Your task to perform on an android device: Open Google Chrome and open the bookmarks view Image 0: 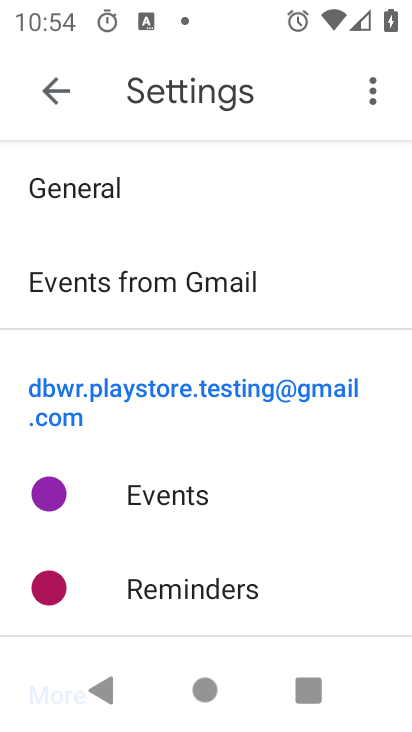
Step 0: press home button
Your task to perform on an android device: Open Google Chrome and open the bookmarks view Image 1: 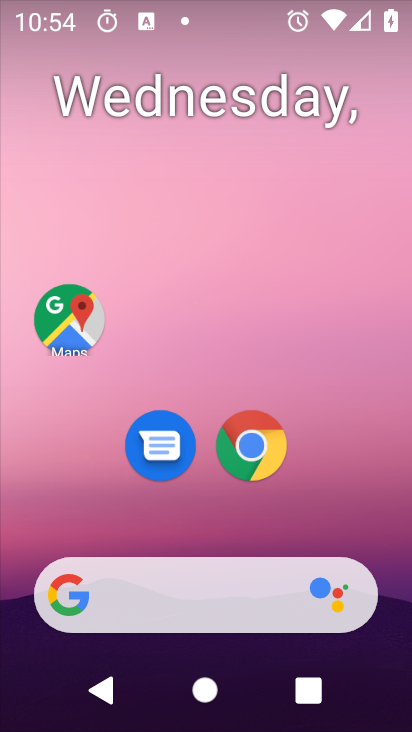
Step 1: drag from (345, 570) to (328, 21)
Your task to perform on an android device: Open Google Chrome and open the bookmarks view Image 2: 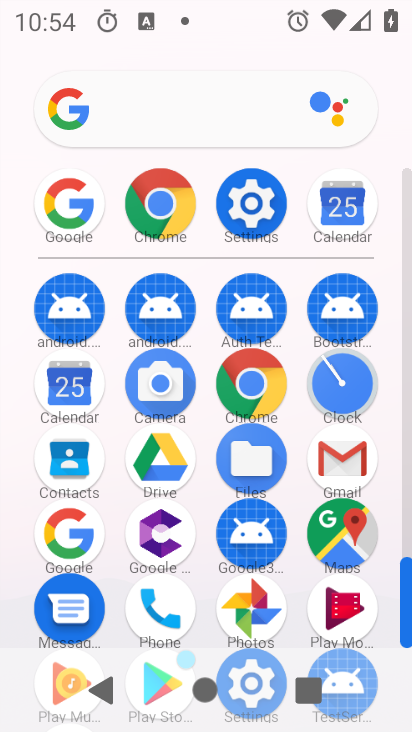
Step 2: click (162, 210)
Your task to perform on an android device: Open Google Chrome and open the bookmarks view Image 3: 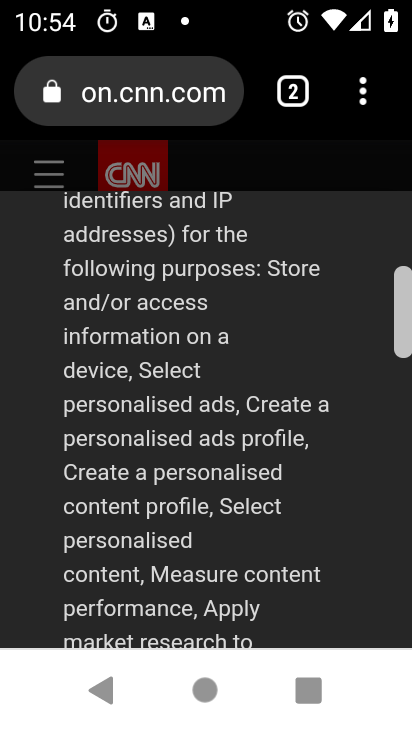
Step 3: drag from (362, 97) to (182, 353)
Your task to perform on an android device: Open Google Chrome and open the bookmarks view Image 4: 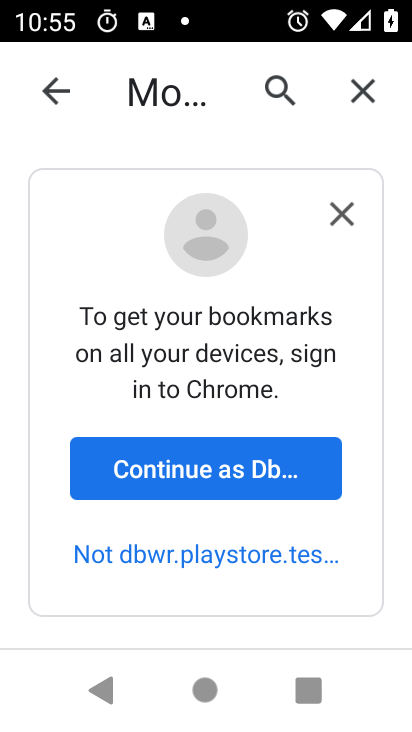
Step 4: click (213, 487)
Your task to perform on an android device: Open Google Chrome and open the bookmarks view Image 5: 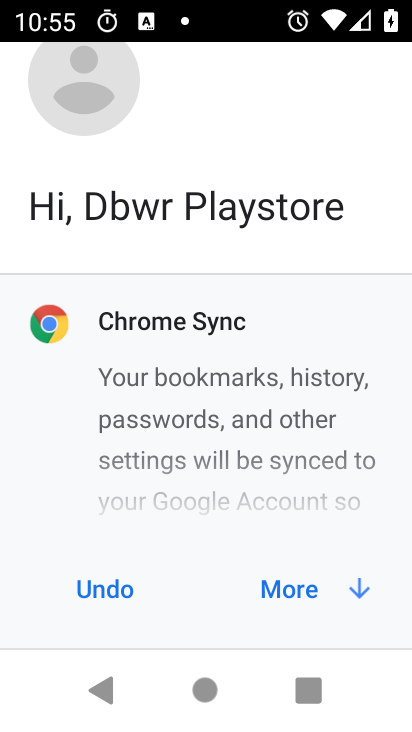
Step 5: drag from (213, 487) to (198, 129)
Your task to perform on an android device: Open Google Chrome and open the bookmarks view Image 6: 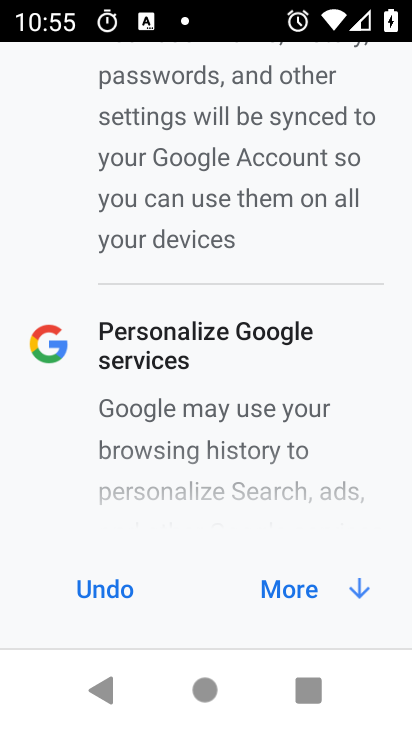
Step 6: click (299, 603)
Your task to perform on an android device: Open Google Chrome and open the bookmarks view Image 7: 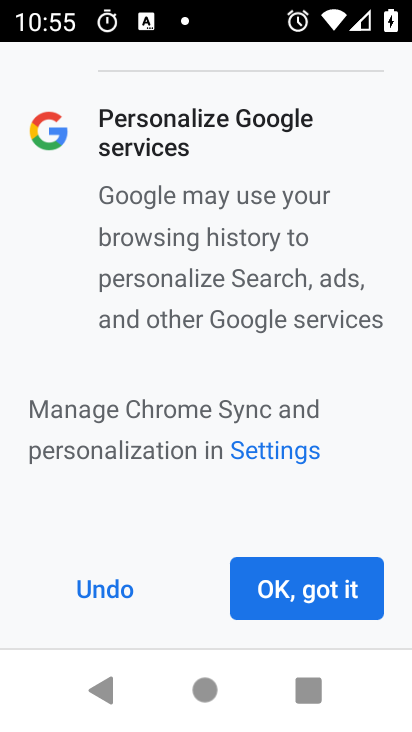
Step 7: click (299, 603)
Your task to perform on an android device: Open Google Chrome and open the bookmarks view Image 8: 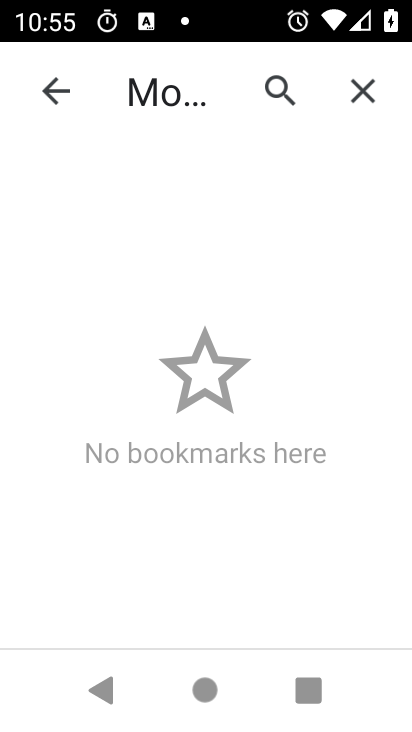
Step 8: task complete